Your task to perform on an android device: check battery use Image 0: 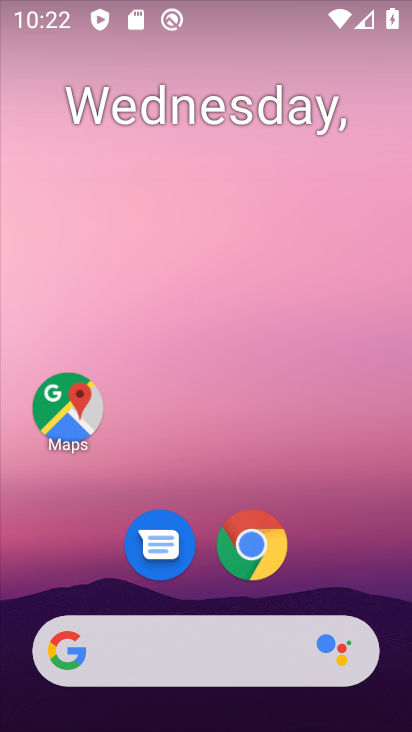
Step 0: drag from (249, 639) to (329, 4)
Your task to perform on an android device: check battery use Image 1: 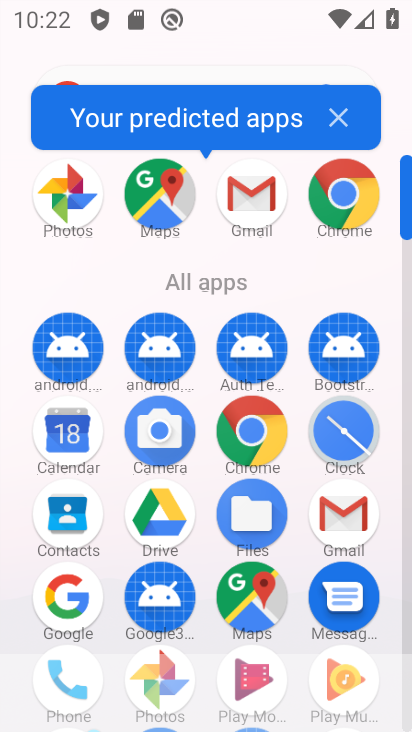
Step 1: drag from (261, 560) to (332, 28)
Your task to perform on an android device: check battery use Image 2: 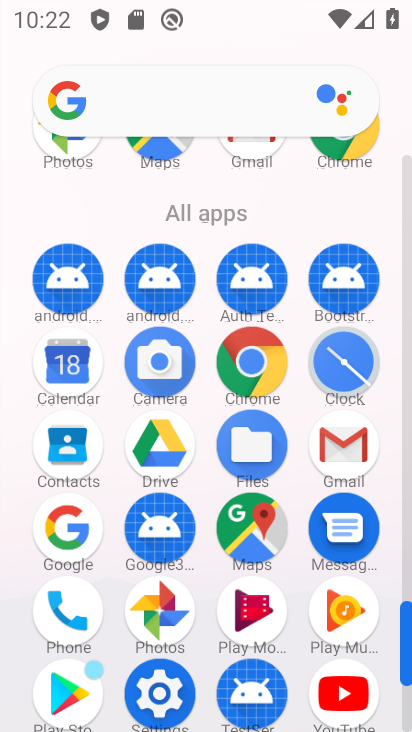
Step 2: click (173, 679)
Your task to perform on an android device: check battery use Image 3: 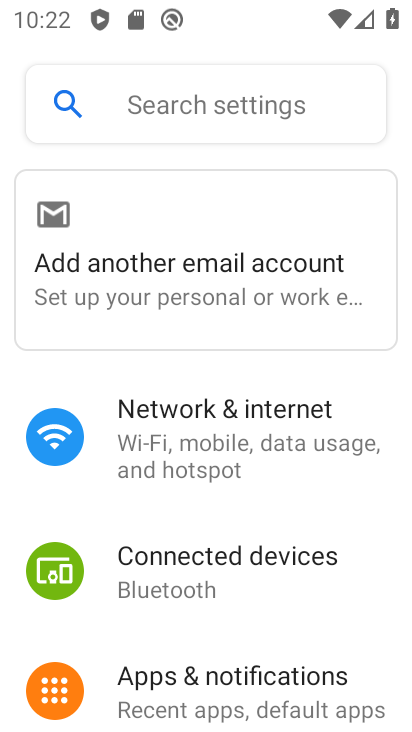
Step 3: drag from (259, 653) to (202, 44)
Your task to perform on an android device: check battery use Image 4: 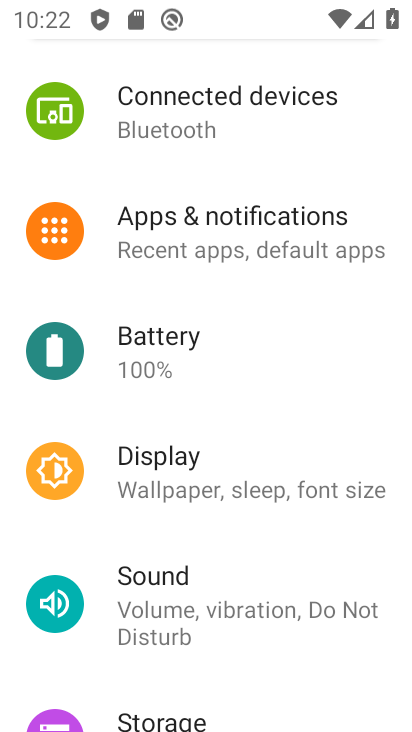
Step 4: click (231, 343)
Your task to perform on an android device: check battery use Image 5: 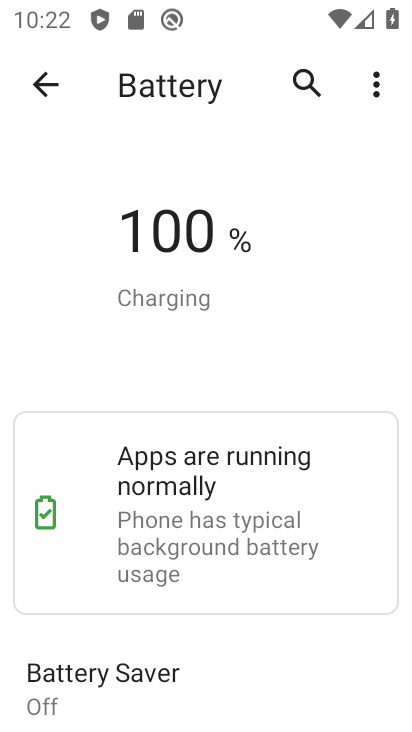
Step 5: click (380, 91)
Your task to perform on an android device: check battery use Image 6: 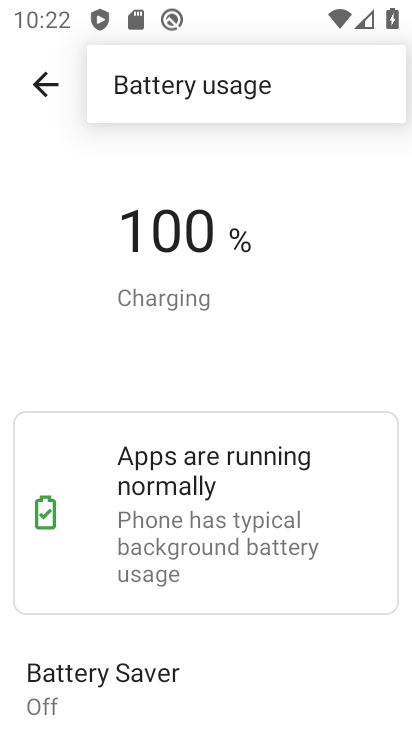
Step 6: click (221, 81)
Your task to perform on an android device: check battery use Image 7: 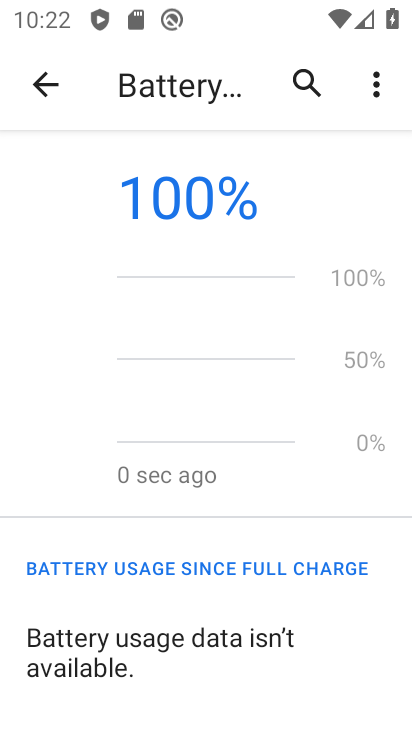
Step 7: task complete